Your task to perform on an android device: Open maps Image 0: 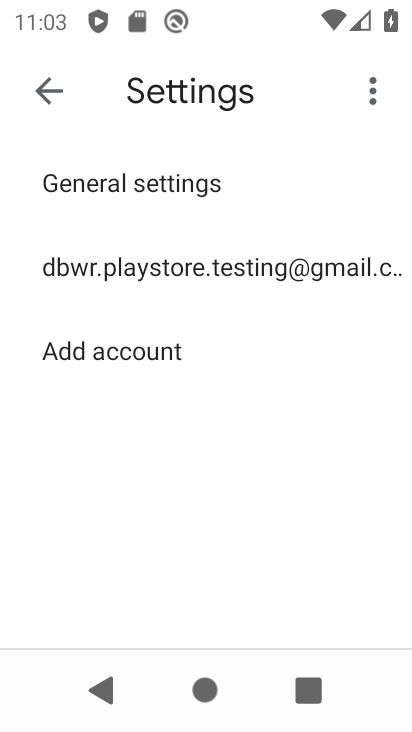
Step 0: press home button
Your task to perform on an android device: Open maps Image 1: 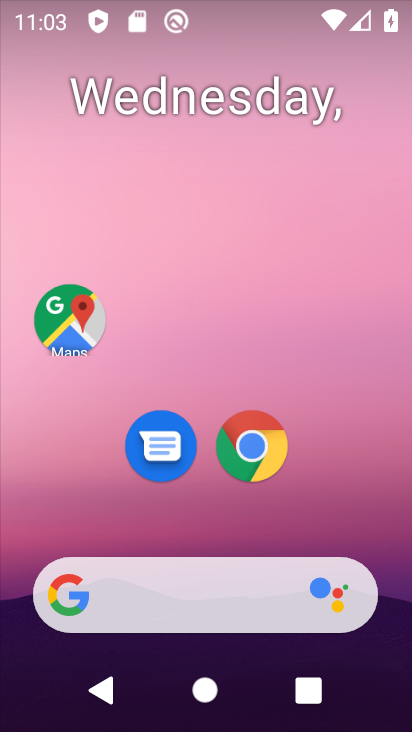
Step 1: click (74, 316)
Your task to perform on an android device: Open maps Image 2: 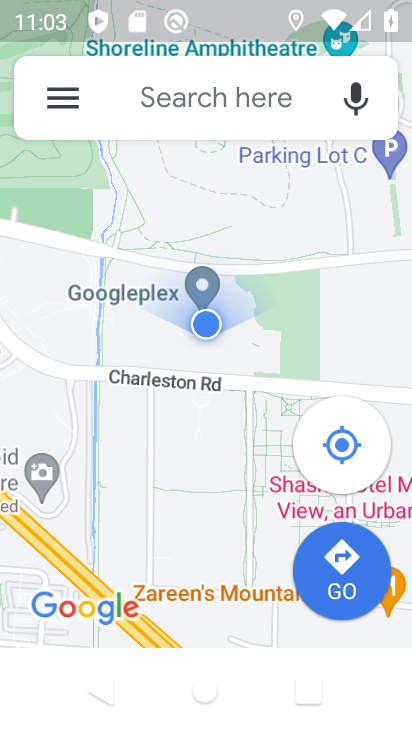
Step 2: task complete